Your task to perform on an android device: add a contact Image 0: 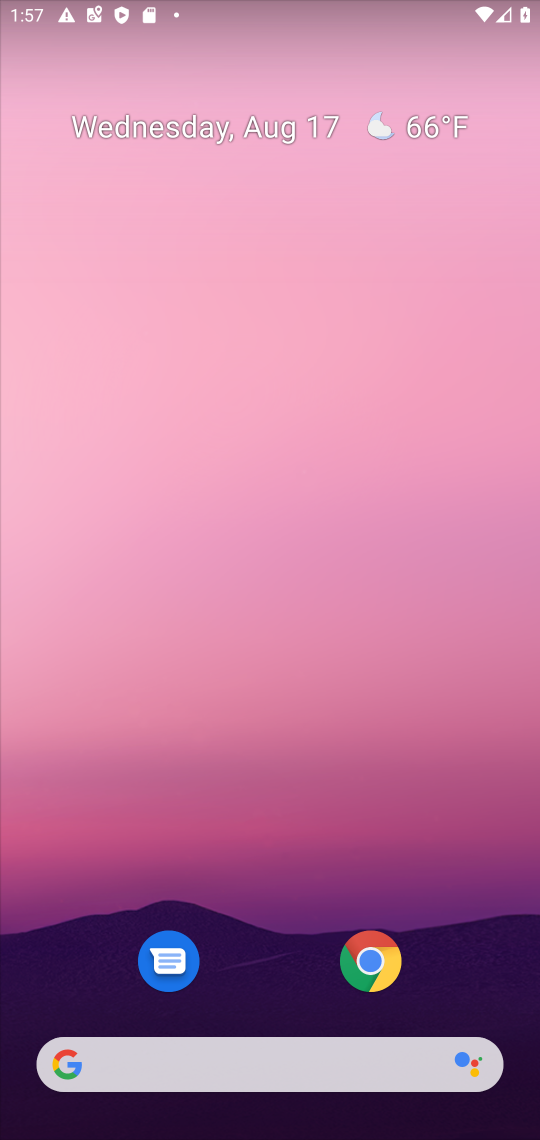
Step 0: drag from (322, 991) to (390, 439)
Your task to perform on an android device: add a contact Image 1: 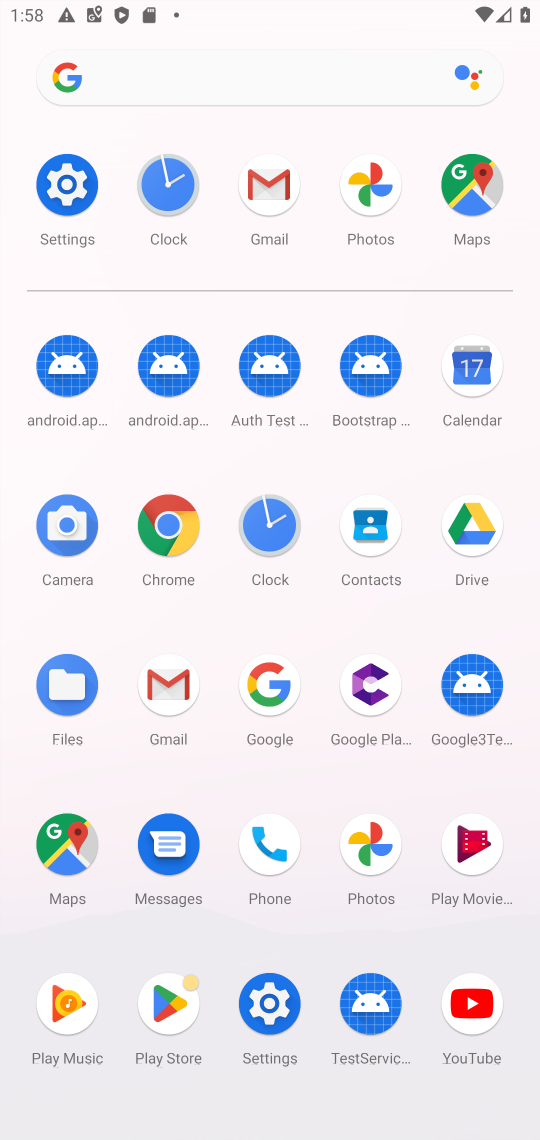
Step 1: click (387, 551)
Your task to perform on an android device: add a contact Image 2: 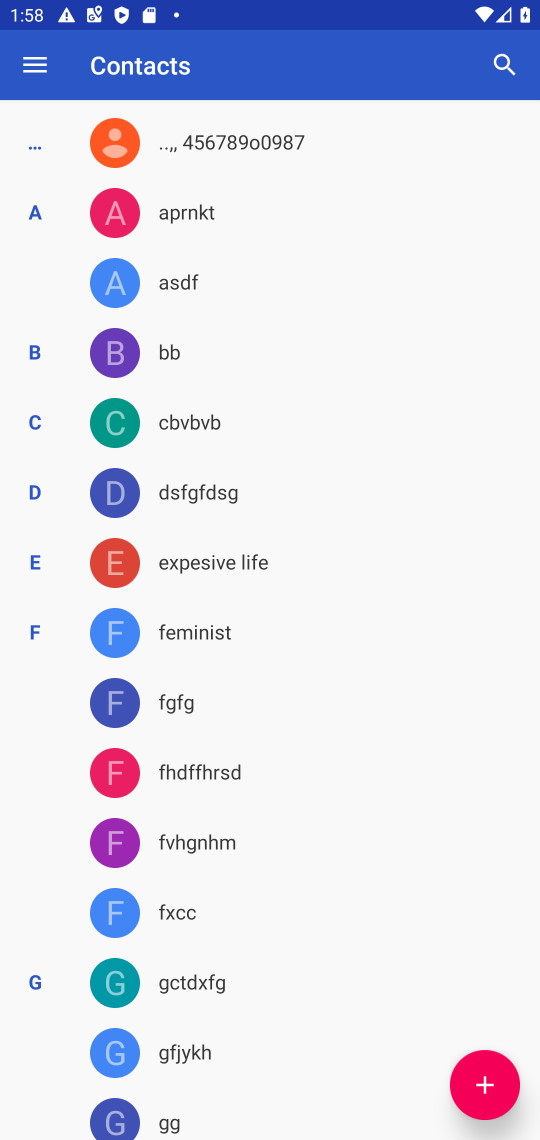
Step 2: click (468, 1083)
Your task to perform on an android device: add a contact Image 3: 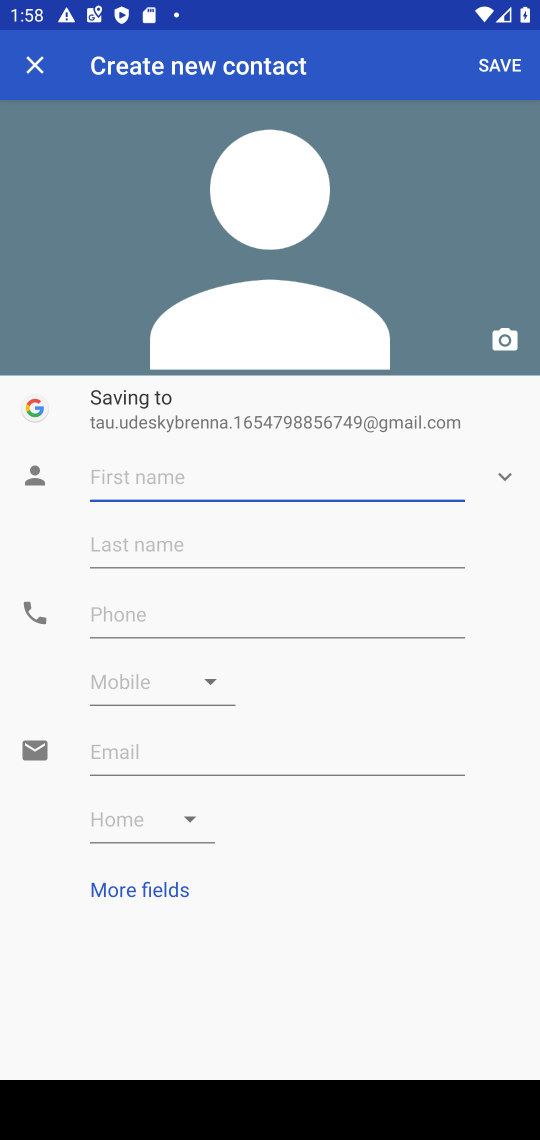
Step 3: type "jdagdabahjdw"
Your task to perform on an android device: add a contact Image 4: 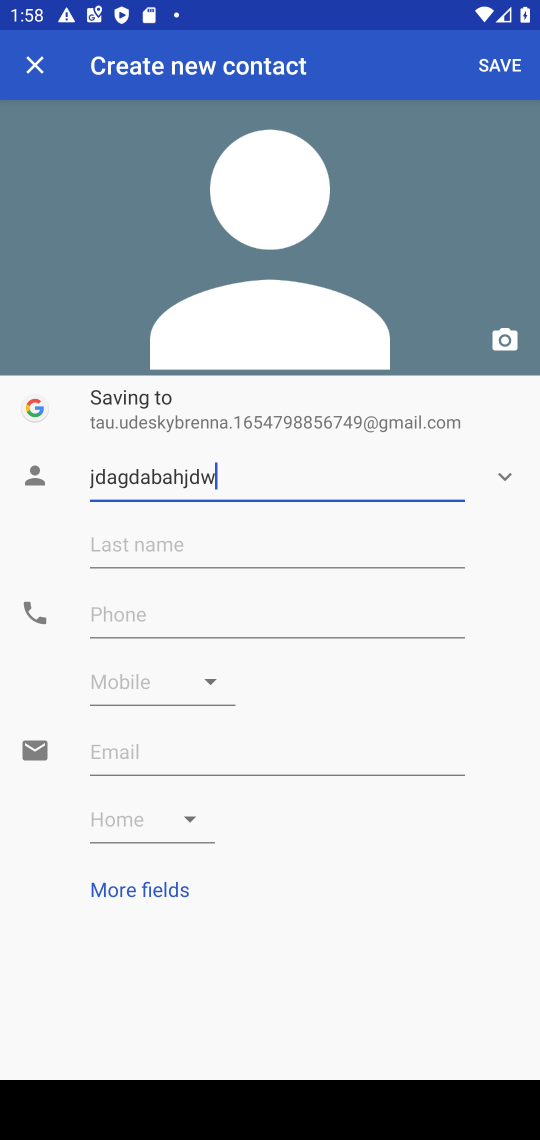
Step 4: click (281, 543)
Your task to perform on an android device: add a contact Image 5: 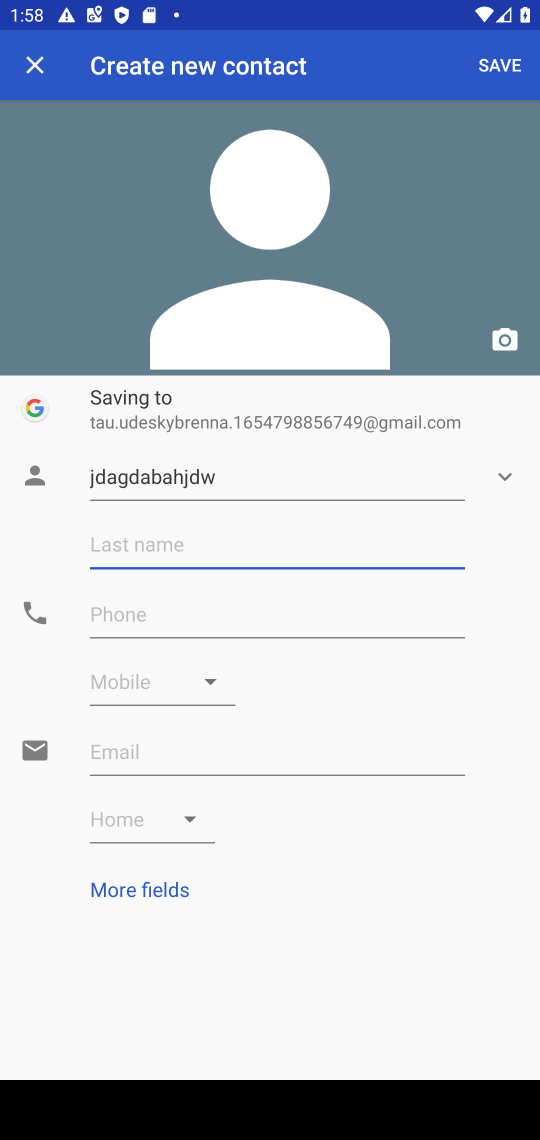
Step 5: click (234, 637)
Your task to perform on an android device: add a contact Image 6: 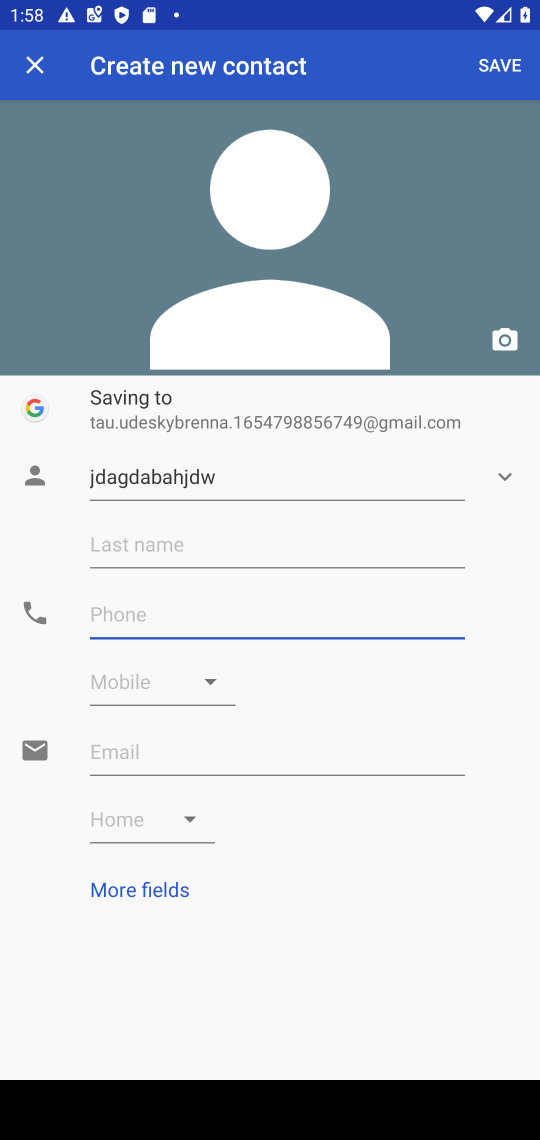
Step 6: type "9876567"
Your task to perform on an android device: add a contact Image 7: 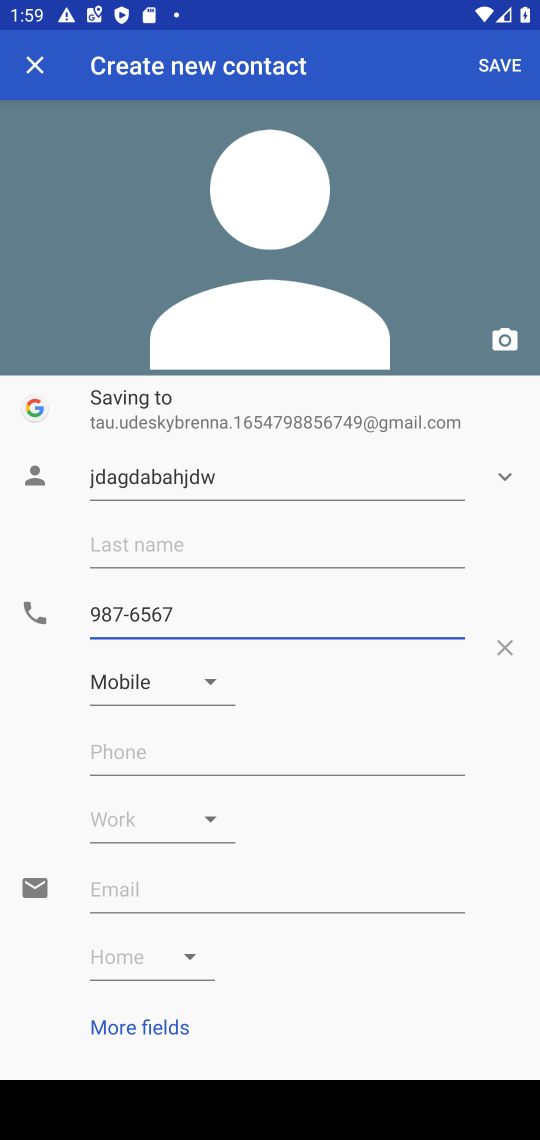
Step 7: click (500, 72)
Your task to perform on an android device: add a contact Image 8: 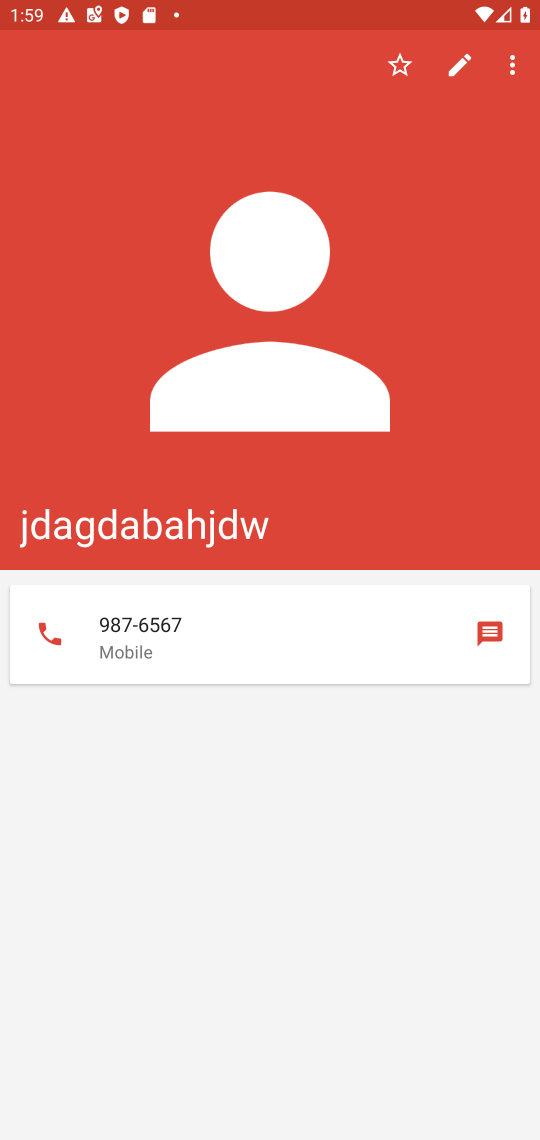
Step 8: task complete